Your task to perform on an android device: delete a single message in the gmail app Image 0: 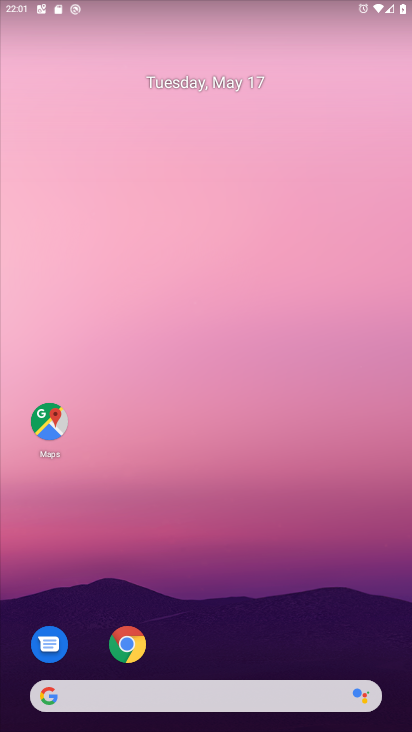
Step 0: drag from (3, 292) to (403, 296)
Your task to perform on an android device: delete a single message in the gmail app Image 1: 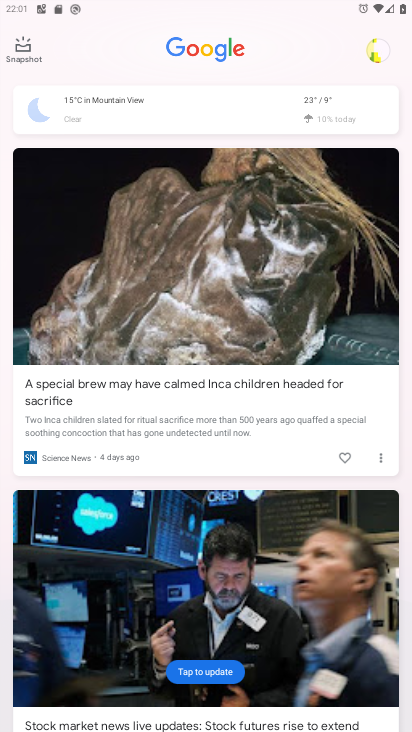
Step 1: click (248, 106)
Your task to perform on an android device: delete a single message in the gmail app Image 2: 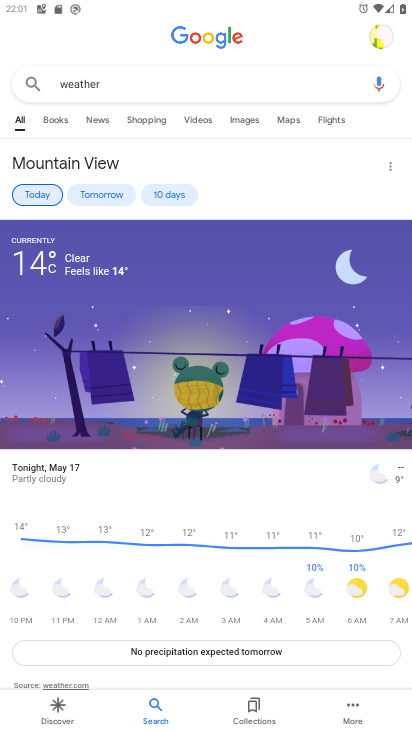
Step 2: press home button
Your task to perform on an android device: delete a single message in the gmail app Image 3: 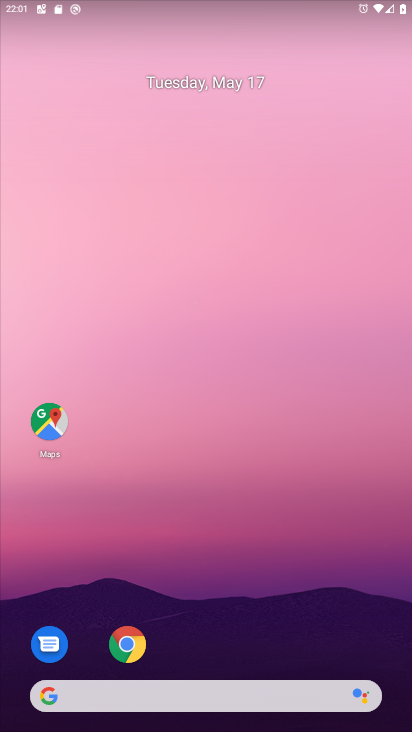
Step 3: drag from (221, 660) to (252, 209)
Your task to perform on an android device: delete a single message in the gmail app Image 4: 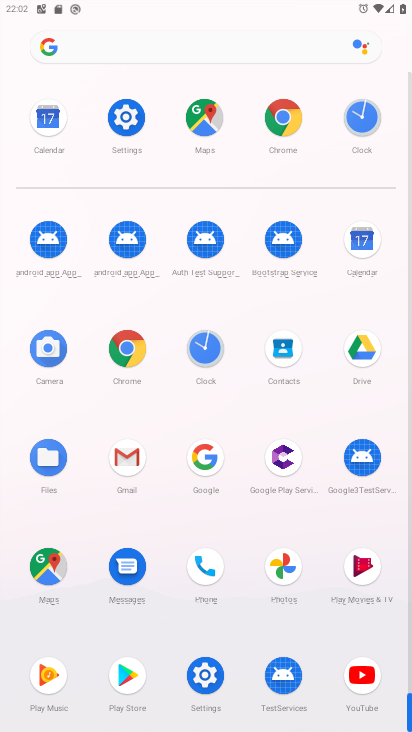
Step 4: click (126, 459)
Your task to perform on an android device: delete a single message in the gmail app Image 5: 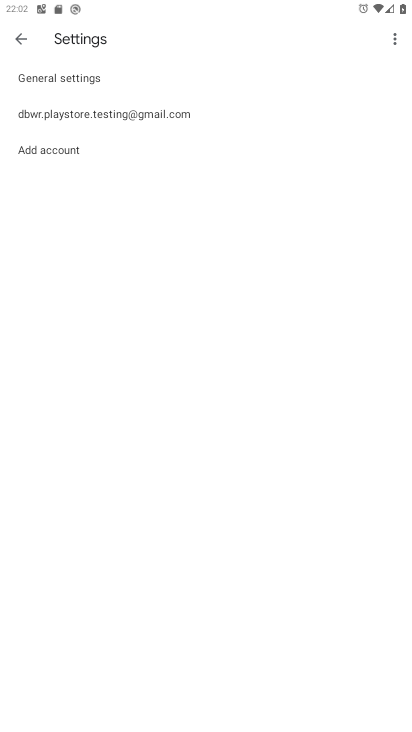
Step 5: click (26, 35)
Your task to perform on an android device: delete a single message in the gmail app Image 6: 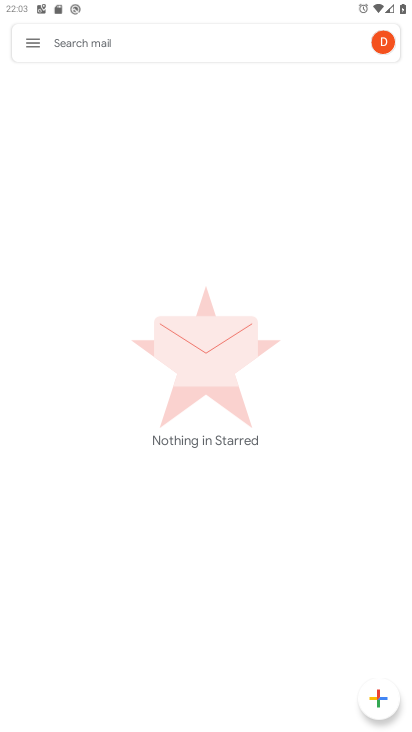
Step 6: task complete